Your task to perform on an android device: What is the recent news? Image 0: 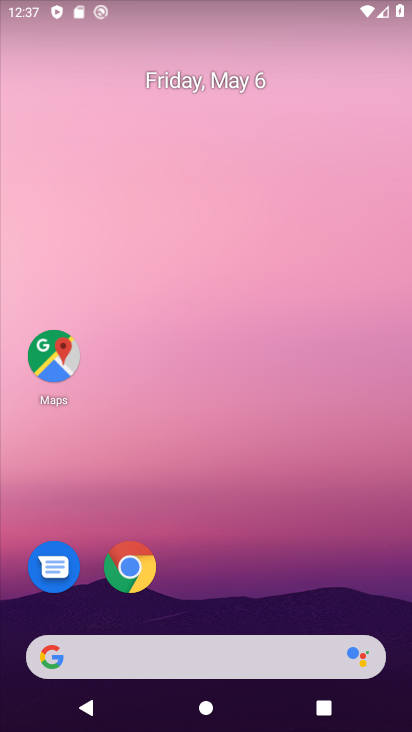
Step 0: drag from (258, 662) to (232, 165)
Your task to perform on an android device: What is the recent news? Image 1: 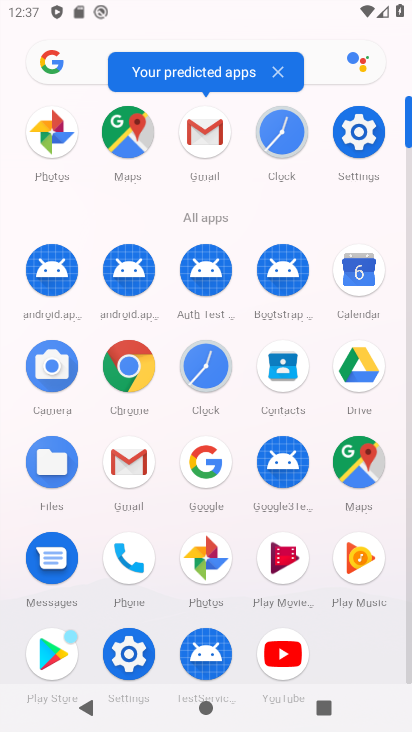
Step 1: click (79, 76)
Your task to perform on an android device: What is the recent news? Image 2: 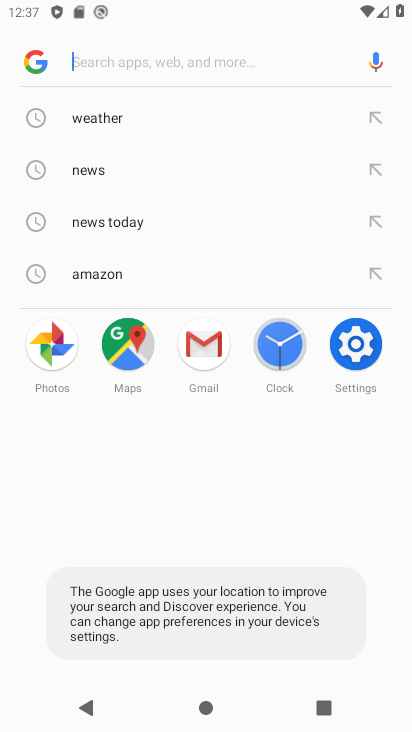
Step 2: drag from (386, 702) to (364, 492)
Your task to perform on an android device: What is the recent news? Image 3: 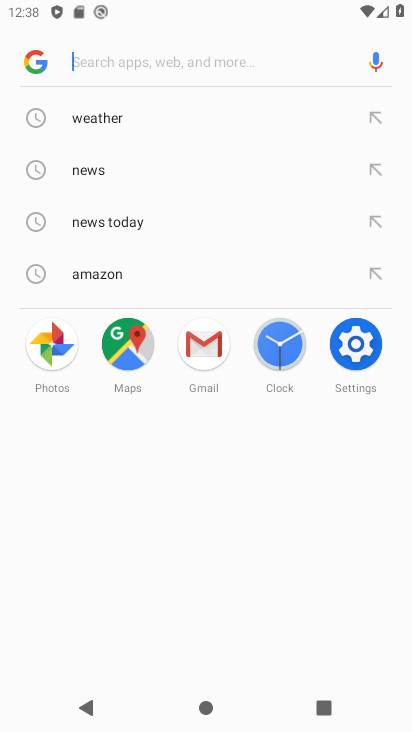
Step 3: drag from (388, 708) to (386, 601)
Your task to perform on an android device: What is the recent news? Image 4: 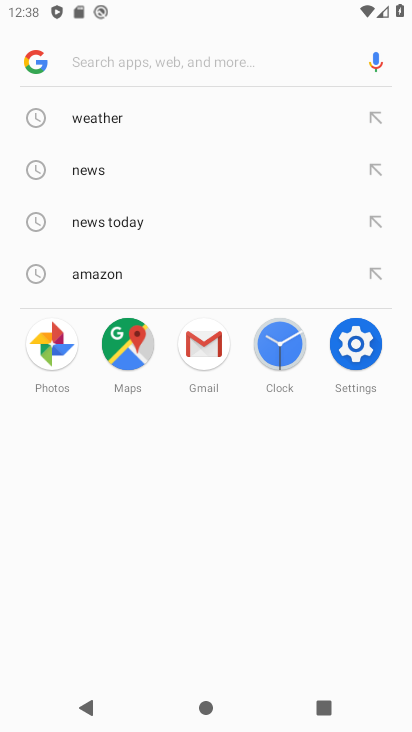
Step 4: click (135, 62)
Your task to perform on an android device: What is the recent news? Image 5: 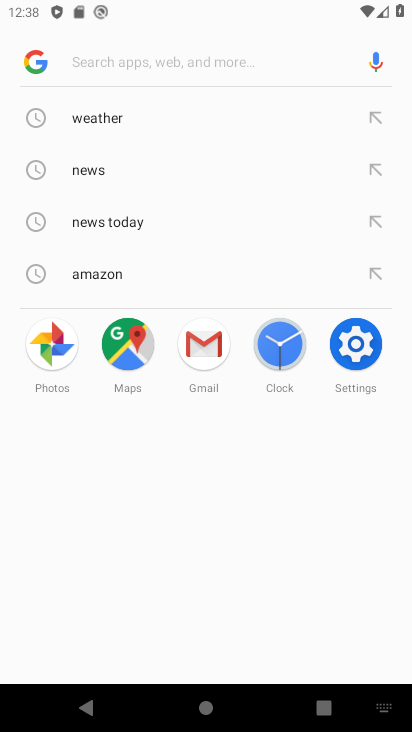
Step 5: click (387, 707)
Your task to perform on an android device: What is the recent news? Image 6: 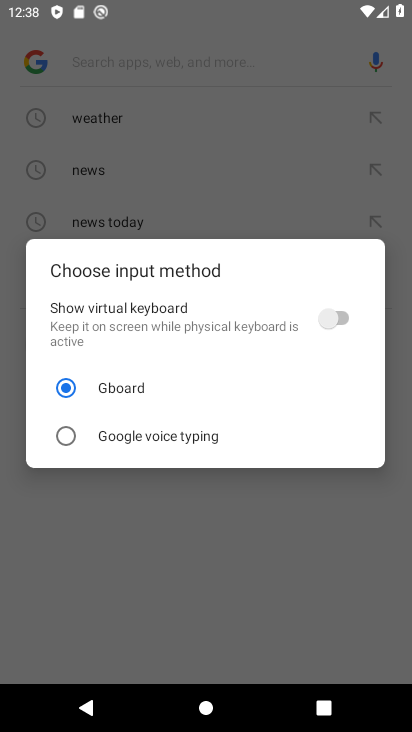
Step 6: click (350, 314)
Your task to perform on an android device: What is the recent news? Image 7: 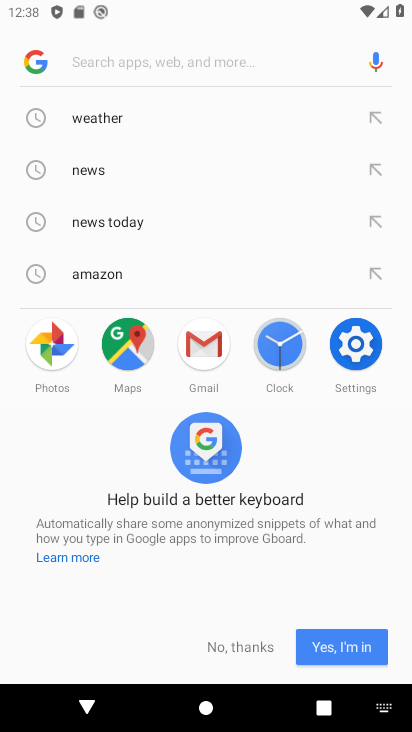
Step 7: click (125, 58)
Your task to perform on an android device: What is the recent news? Image 8: 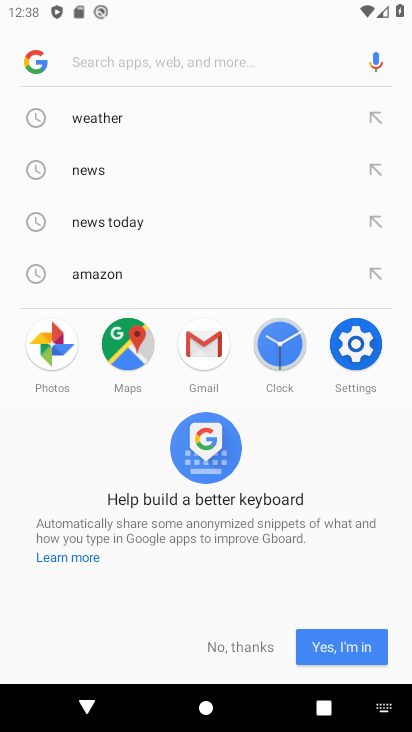
Step 8: click (228, 649)
Your task to perform on an android device: What is the recent news? Image 9: 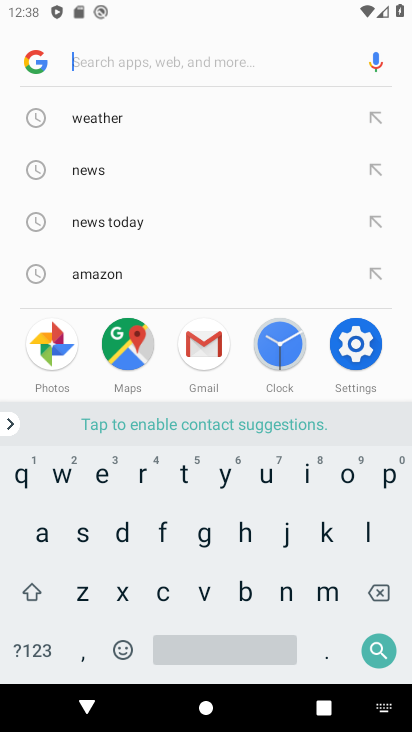
Step 9: click (135, 478)
Your task to perform on an android device: What is the recent news? Image 10: 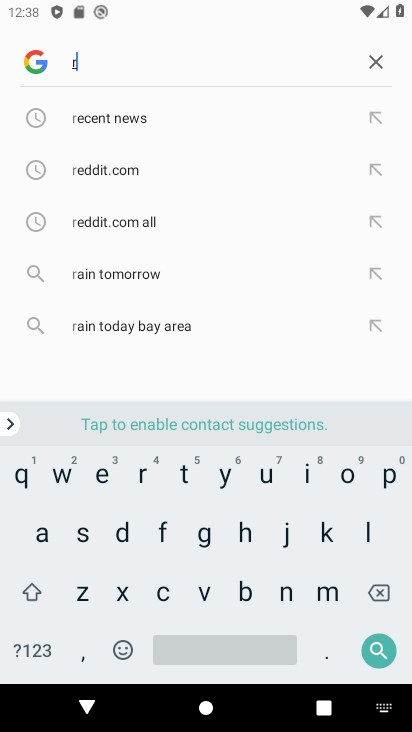
Step 10: click (91, 474)
Your task to perform on an android device: What is the recent news? Image 11: 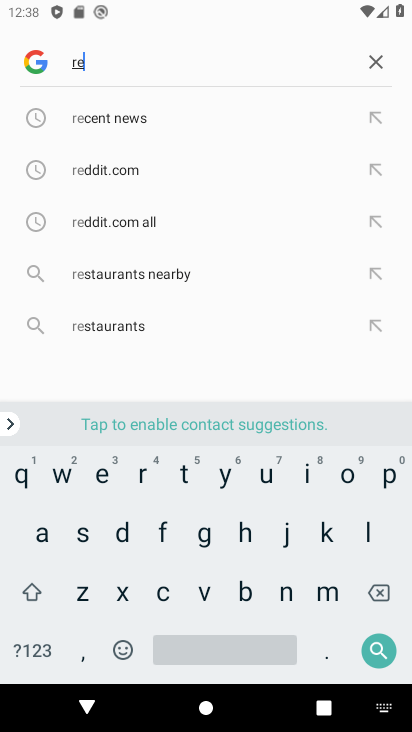
Step 11: click (379, 591)
Your task to perform on an android device: What is the recent news? Image 12: 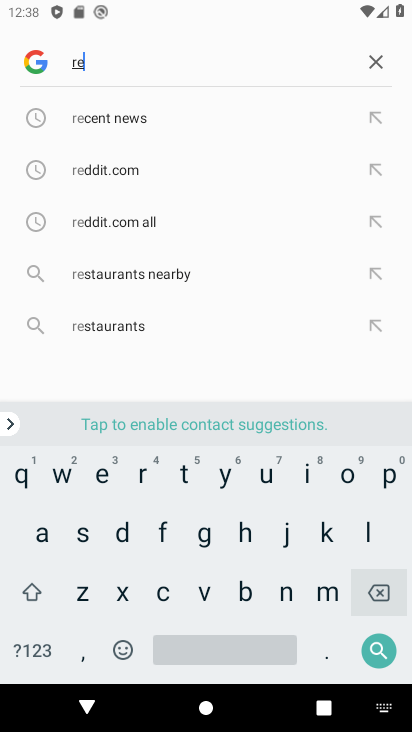
Step 12: click (379, 591)
Your task to perform on an android device: What is the recent news? Image 13: 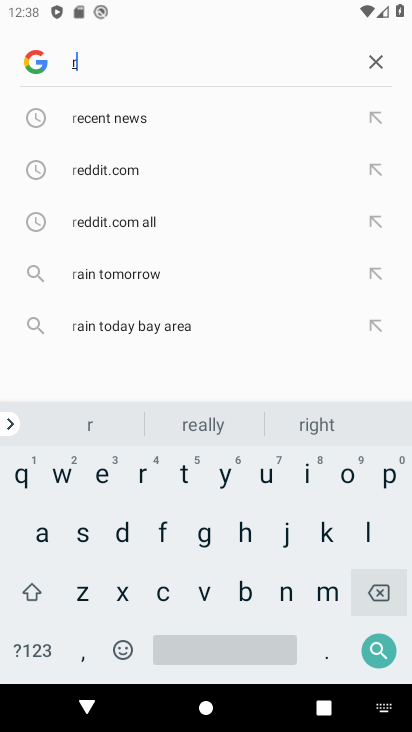
Step 13: click (379, 591)
Your task to perform on an android device: What is the recent news? Image 14: 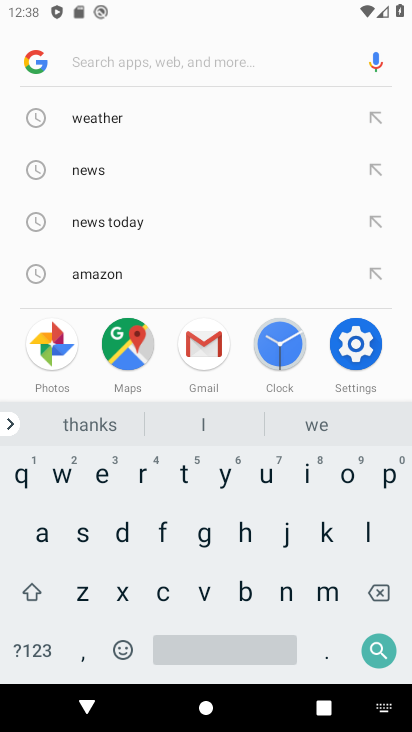
Step 14: click (145, 473)
Your task to perform on an android device: What is the recent news? Image 15: 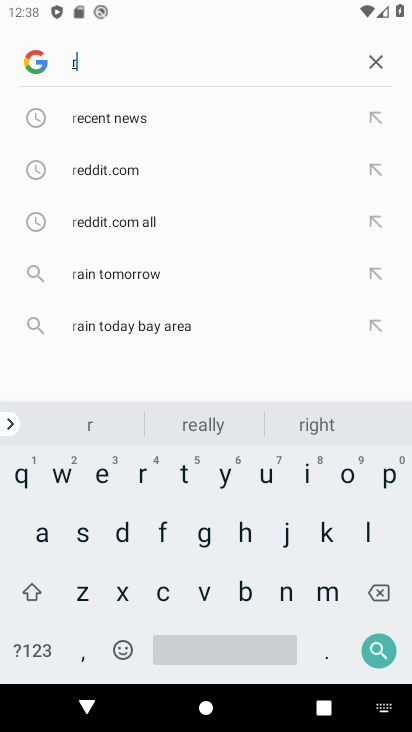
Step 15: click (130, 112)
Your task to perform on an android device: What is the recent news? Image 16: 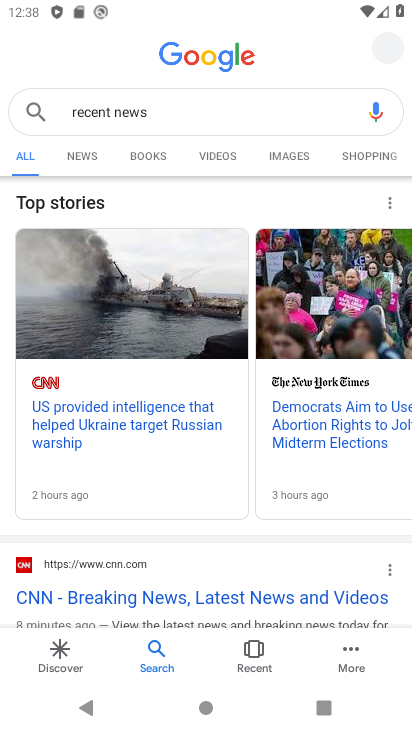
Step 16: task complete